Your task to perform on an android device: turn off data saver in the chrome app Image 0: 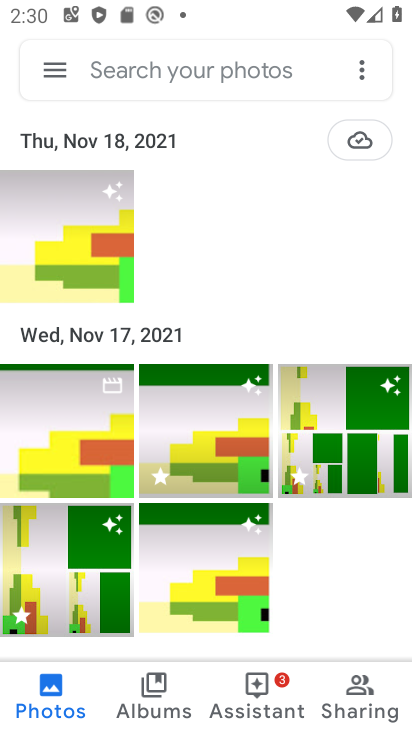
Step 0: press back button
Your task to perform on an android device: turn off data saver in the chrome app Image 1: 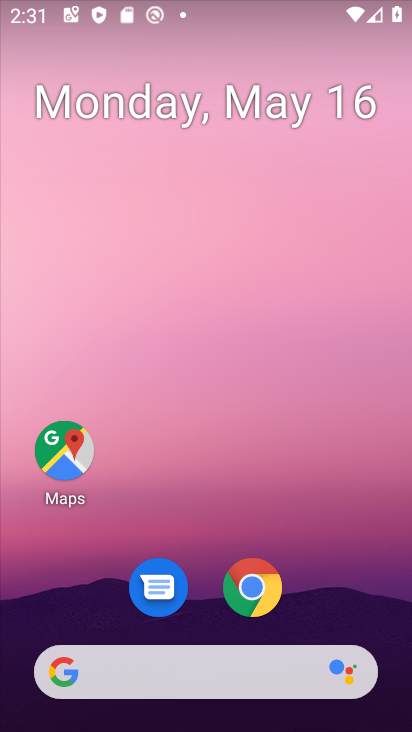
Step 1: drag from (355, 621) to (226, 83)
Your task to perform on an android device: turn off data saver in the chrome app Image 2: 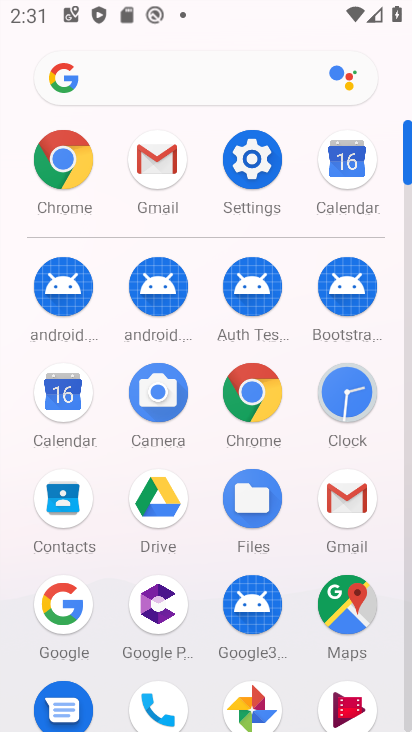
Step 2: click (65, 171)
Your task to perform on an android device: turn off data saver in the chrome app Image 3: 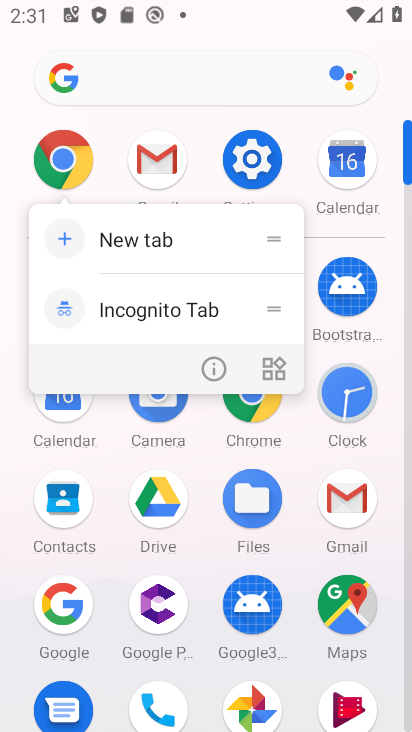
Step 3: click (67, 171)
Your task to perform on an android device: turn off data saver in the chrome app Image 4: 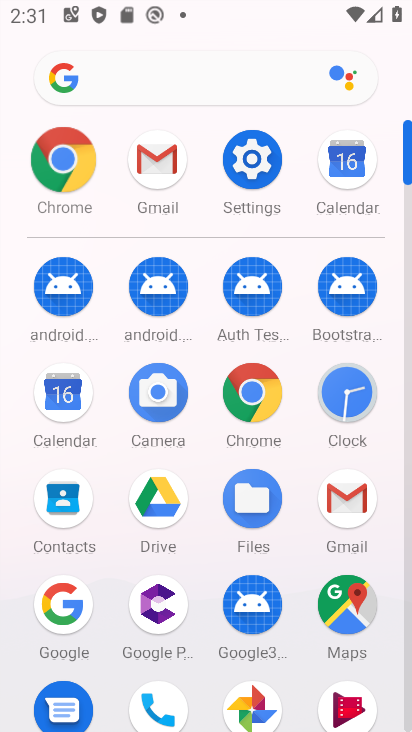
Step 4: click (68, 171)
Your task to perform on an android device: turn off data saver in the chrome app Image 5: 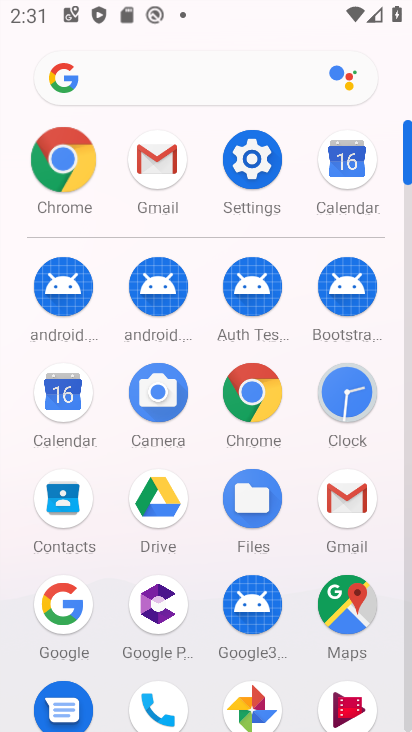
Step 5: click (68, 171)
Your task to perform on an android device: turn off data saver in the chrome app Image 6: 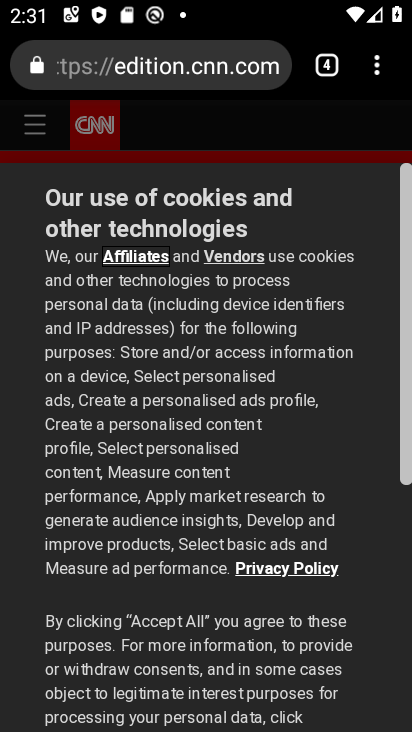
Step 6: click (70, 171)
Your task to perform on an android device: turn off data saver in the chrome app Image 7: 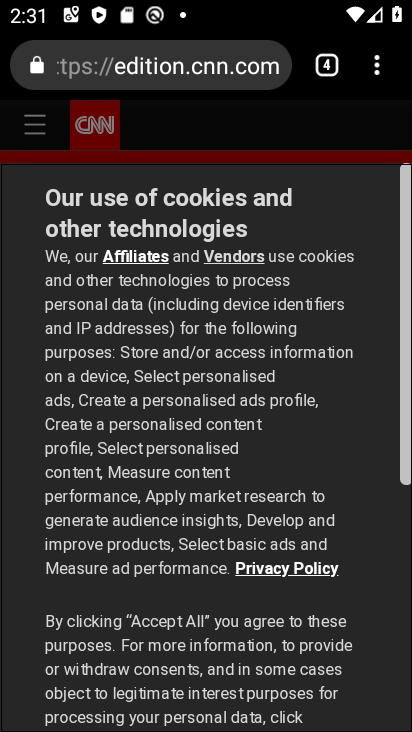
Step 7: drag from (384, 57) to (156, 634)
Your task to perform on an android device: turn off data saver in the chrome app Image 8: 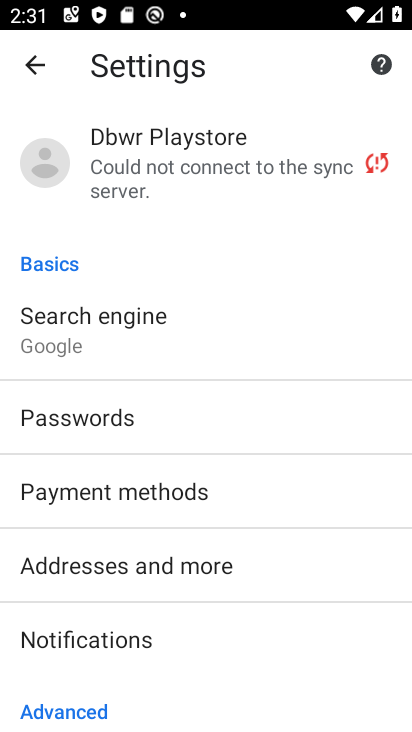
Step 8: drag from (138, 468) to (75, 117)
Your task to perform on an android device: turn off data saver in the chrome app Image 9: 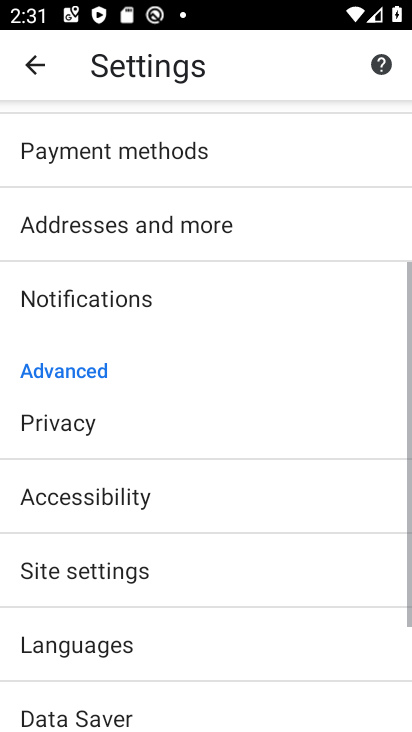
Step 9: drag from (155, 415) to (160, 41)
Your task to perform on an android device: turn off data saver in the chrome app Image 10: 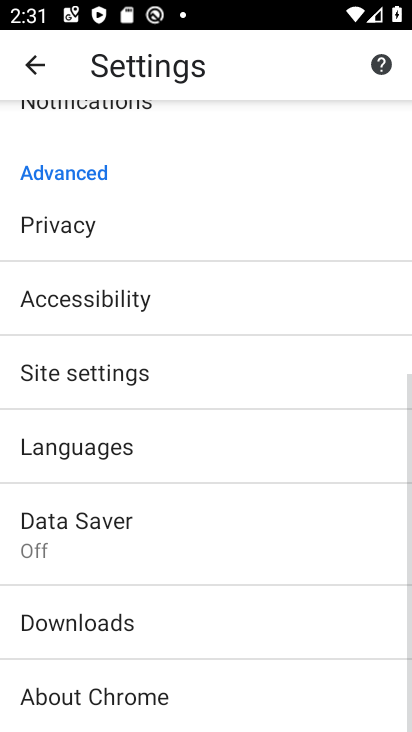
Step 10: click (73, 523)
Your task to perform on an android device: turn off data saver in the chrome app Image 11: 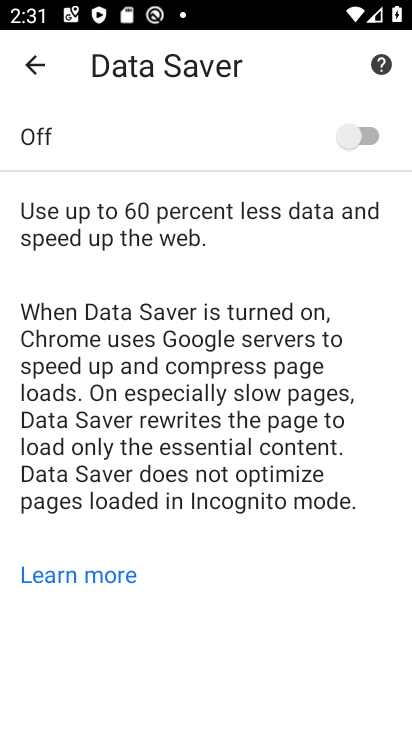
Step 11: task complete